Your task to perform on an android device: check battery use Image 0: 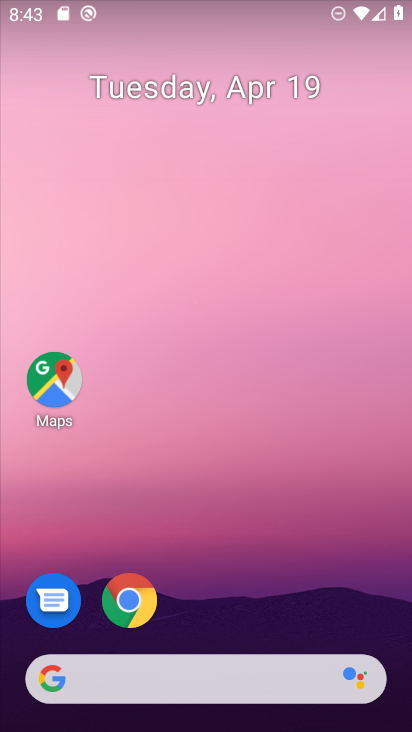
Step 0: drag from (292, 617) to (264, 31)
Your task to perform on an android device: check battery use Image 1: 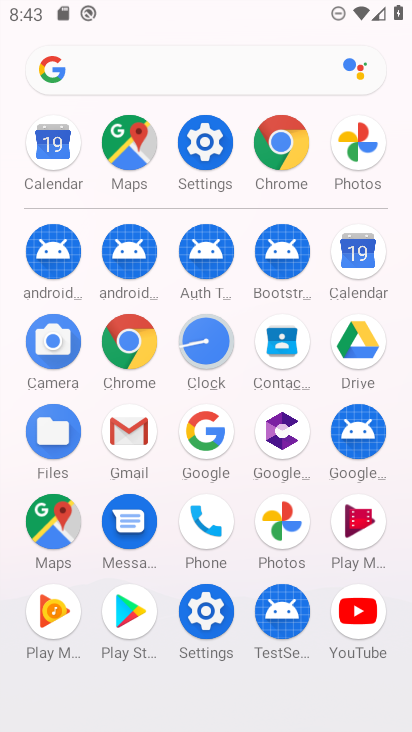
Step 1: click (203, 141)
Your task to perform on an android device: check battery use Image 2: 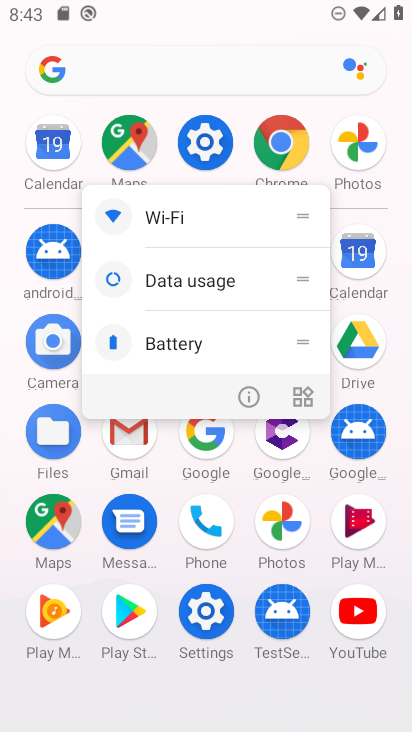
Step 2: click (204, 145)
Your task to perform on an android device: check battery use Image 3: 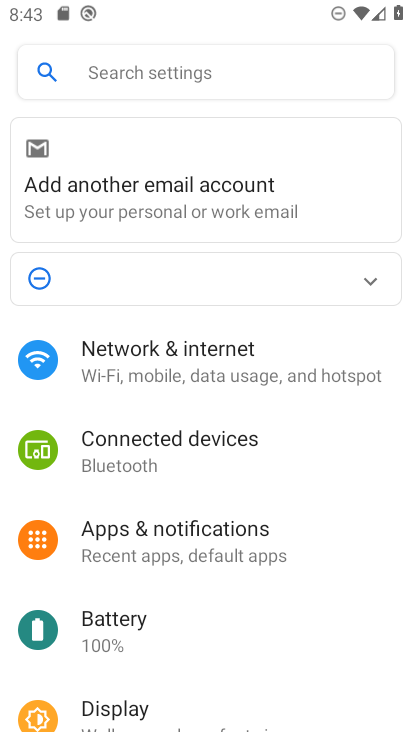
Step 3: click (134, 618)
Your task to perform on an android device: check battery use Image 4: 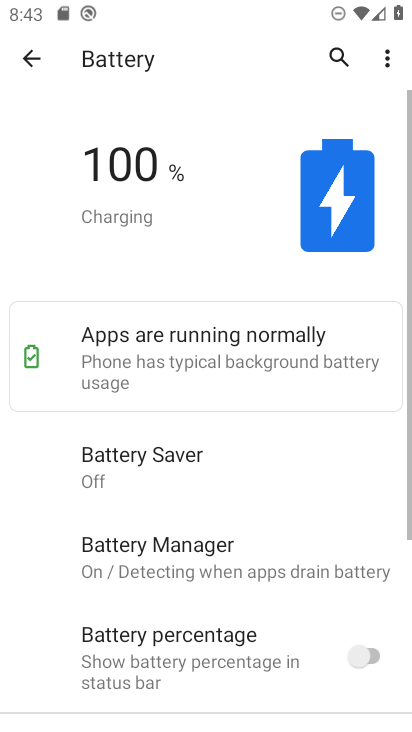
Step 4: click (384, 50)
Your task to perform on an android device: check battery use Image 5: 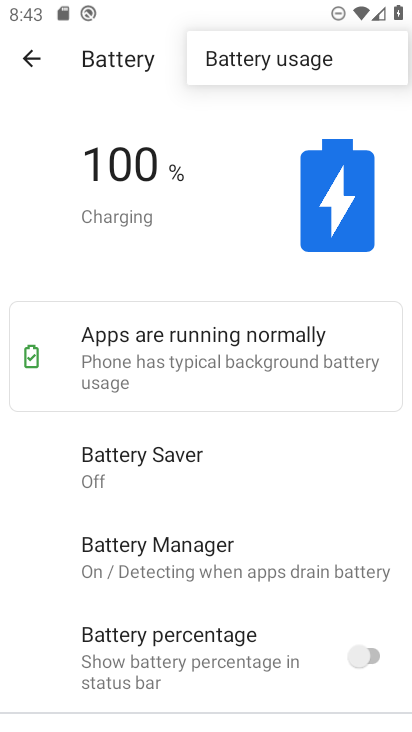
Step 5: click (329, 59)
Your task to perform on an android device: check battery use Image 6: 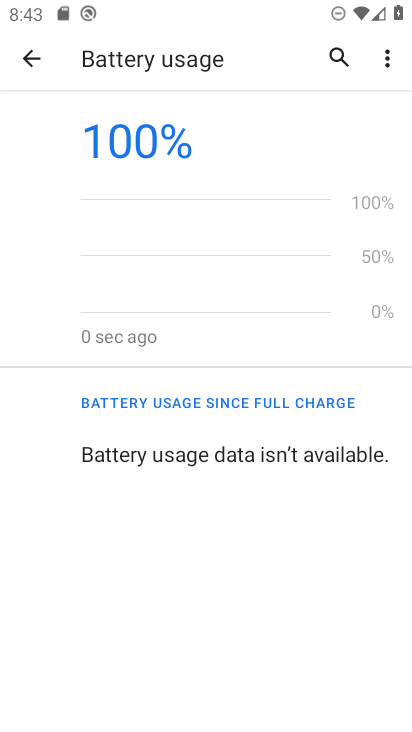
Step 6: task complete